Your task to perform on an android device: Go to Google Image 0: 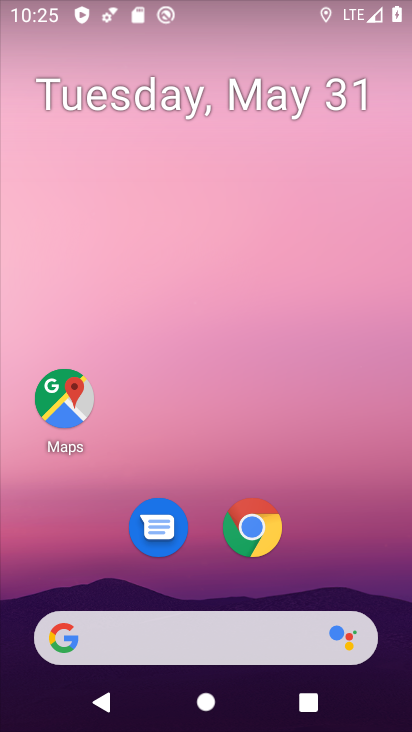
Step 0: drag from (394, 562) to (205, 117)
Your task to perform on an android device: Go to Google Image 1: 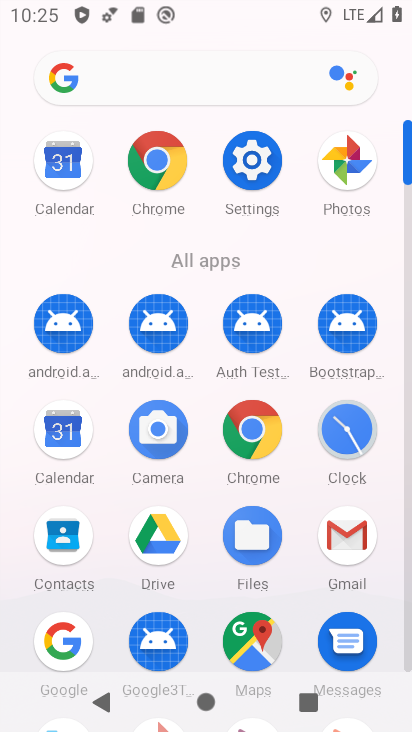
Step 1: click (54, 636)
Your task to perform on an android device: Go to Google Image 2: 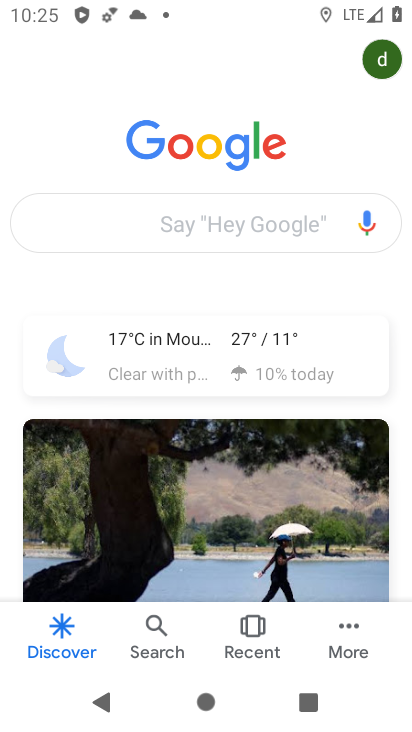
Step 2: task complete